Your task to perform on an android device: all mails in gmail Image 0: 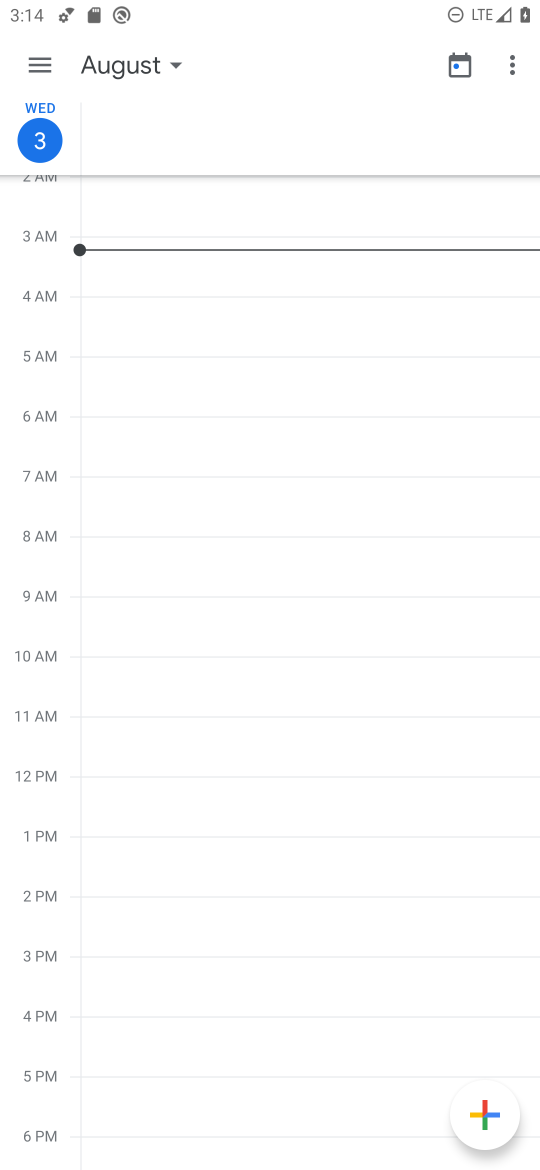
Step 0: press home button
Your task to perform on an android device: all mails in gmail Image 1: 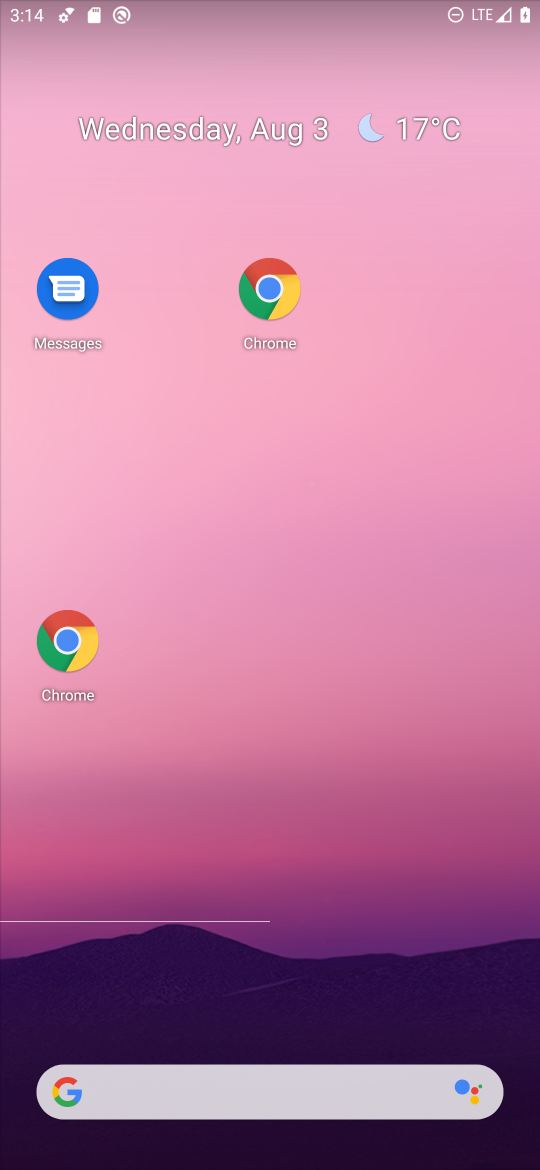
Step 1: drag from (372, 1037) to (301, 139)
Your task to perform on an android device: all mails in gmail Image 2: 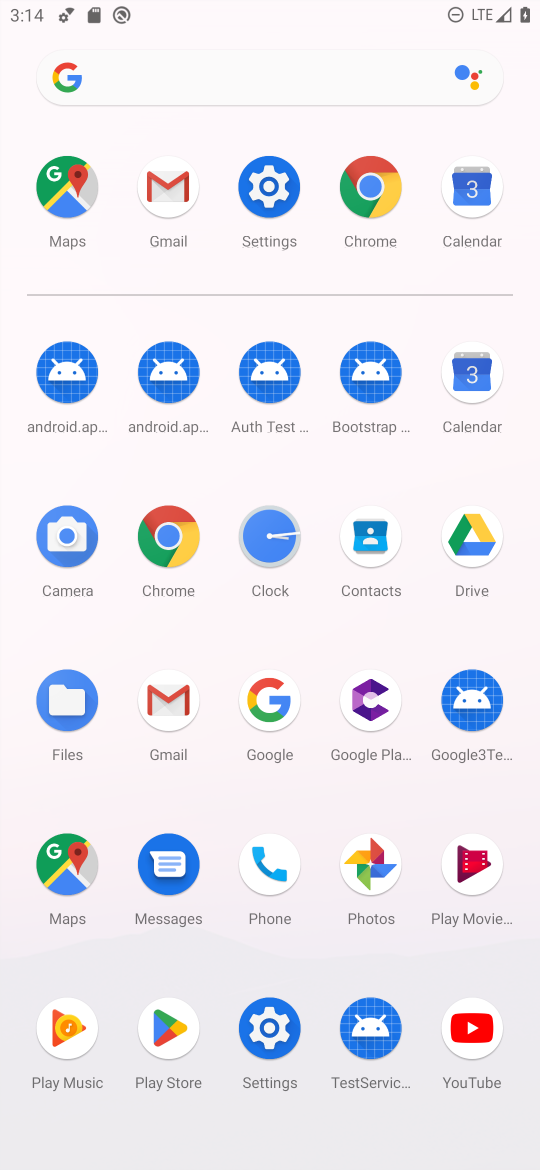
Step 2: click (168, 210)
Your task to perform on an android device: all mails in gmail Image 3: 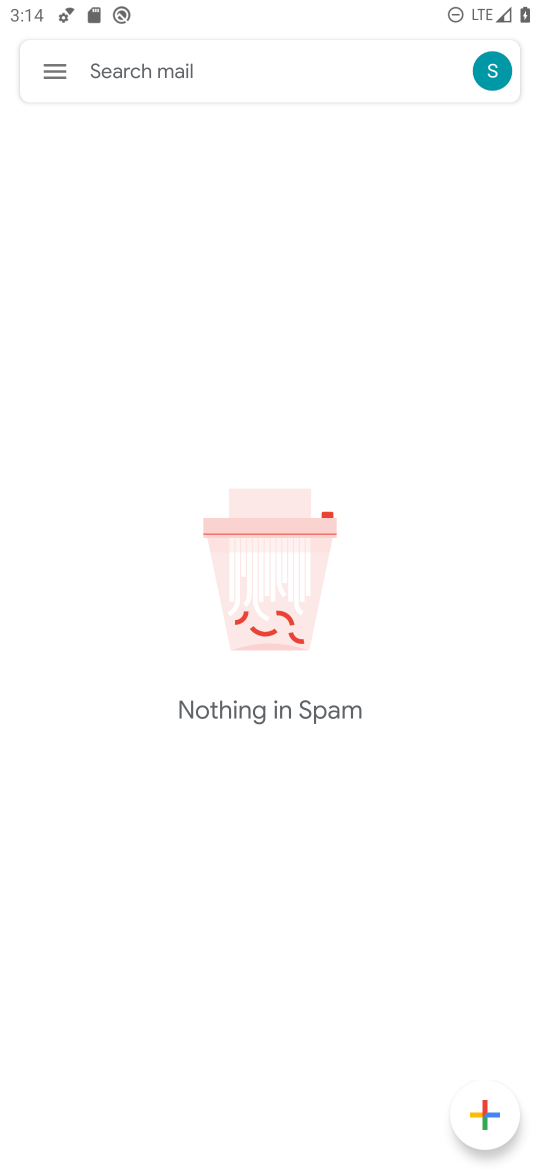
Step 3: click (50, 89)
Your task to perform on an android device: all mails in gmail Image 4: 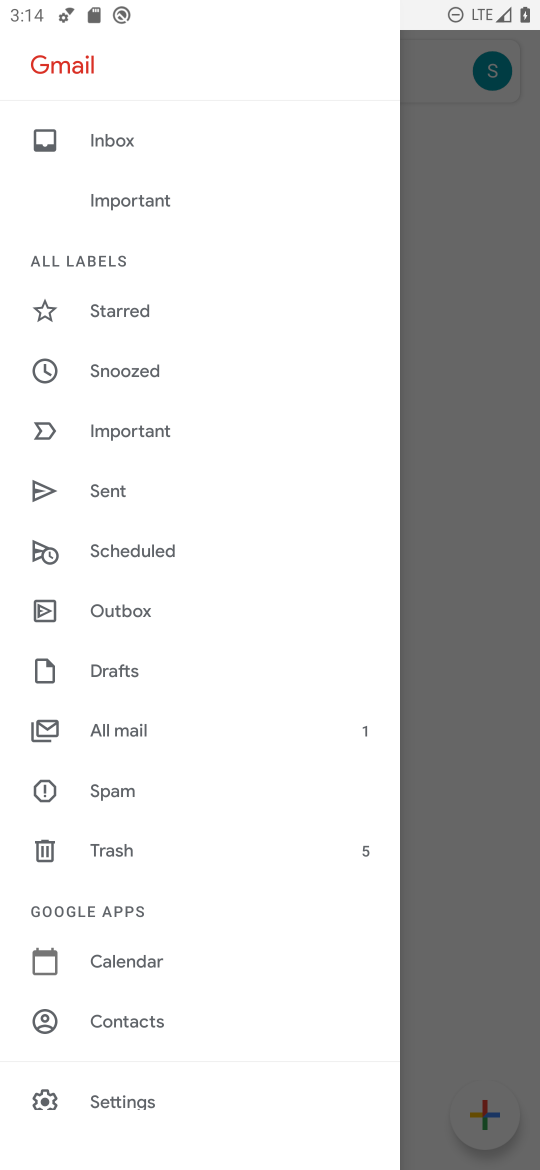
Step 4: click (195, 744)
Your task to perform on an android device: all mails in gmail Image 5: 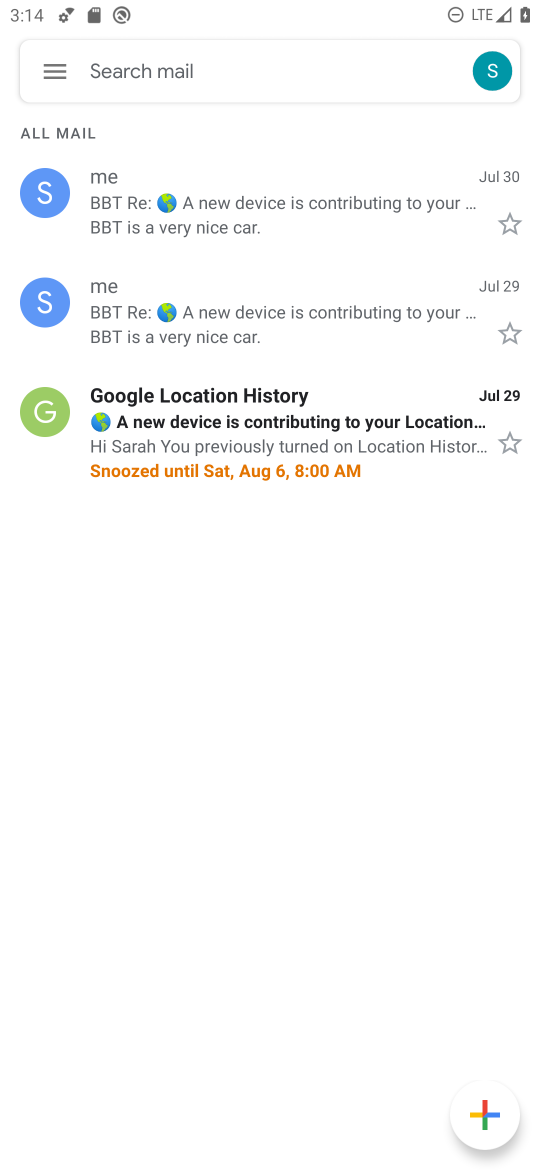
Step 5: task complete